Your task to perform on an android device: check the backup settings in the google photos Image 0: 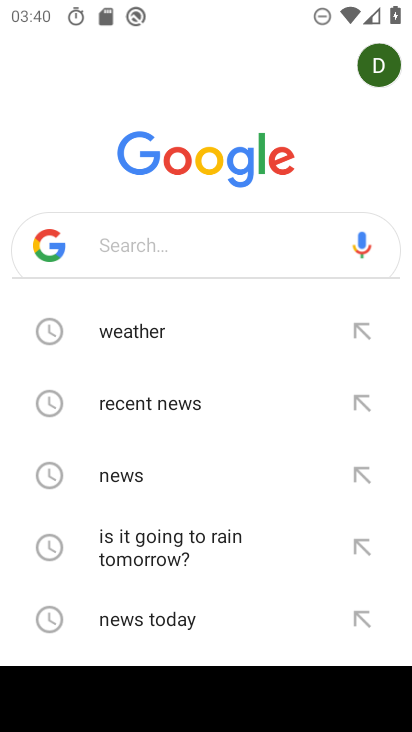
Step 0: press home button
Your task to perform on an android device: check the backup settings in the google photos Image 1: 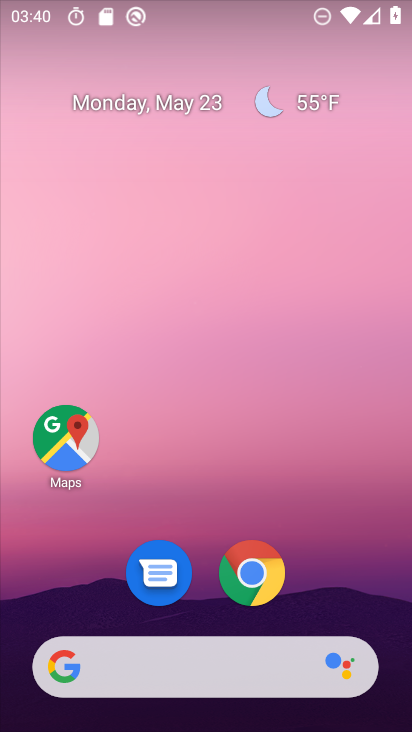
Step 1: drag from (321, 605) to (266, 74)
Your task to perform on an android device: check the backup settings in the google photos Image 2: 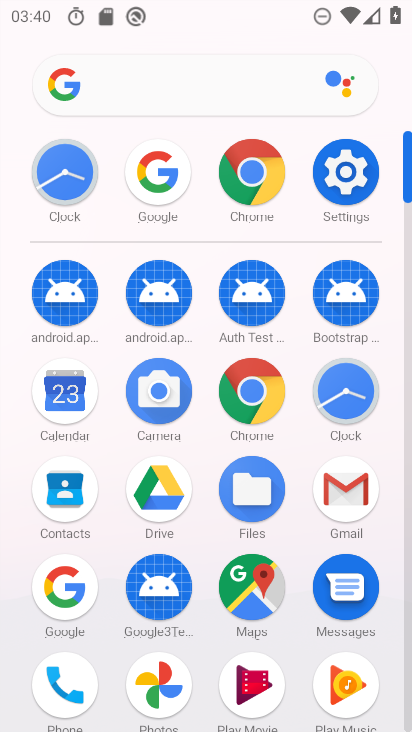
Step 2: click (145, 681)
Your task to perform on an android device: check the backup settings in the google photos Image 3: 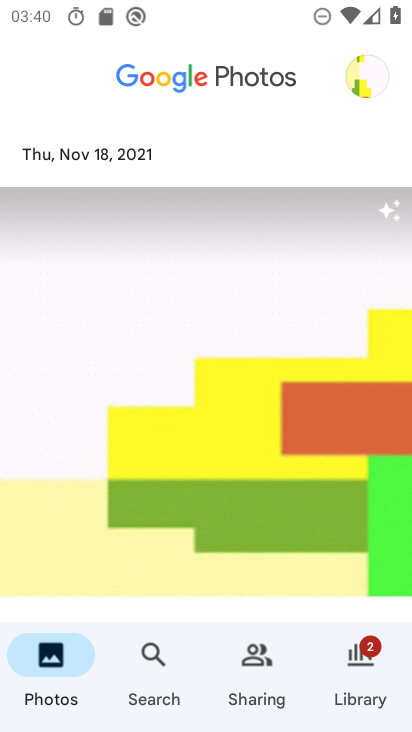
Step 3: click (375, 74)
Your task to perform on an android device: check the backup settings in the google photos Image 4: 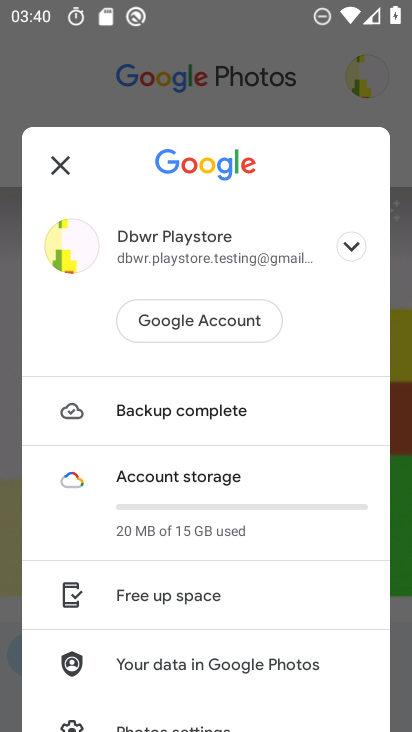
Step 4: drag from (248, 696) to (254, 432)
Your task to perform on an android device: check the backup settings in the google photos Image 5: 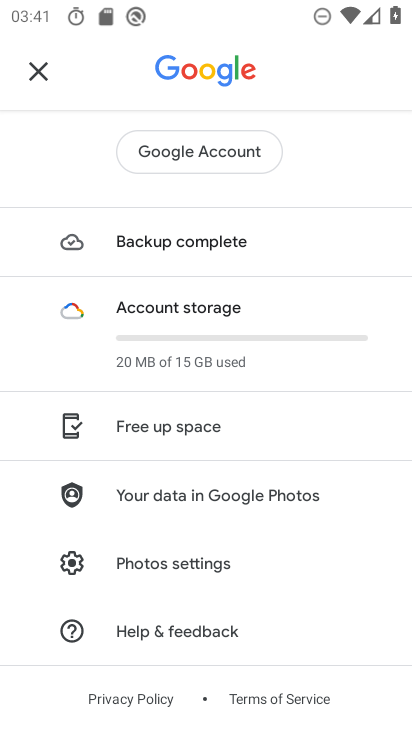
Step 5: click (204, 565)
Your task to perform on an android device: check the backup settings in the google photos Image 6: 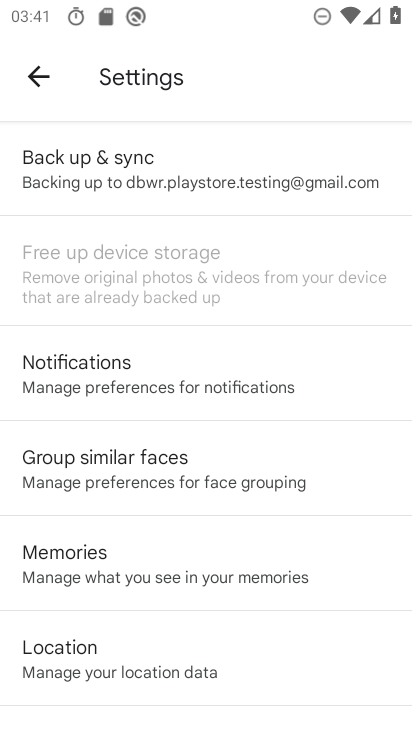
Step 6: click (222, 176)
Your task to perform on an android device: check the backup settings in the google photos Image 7: 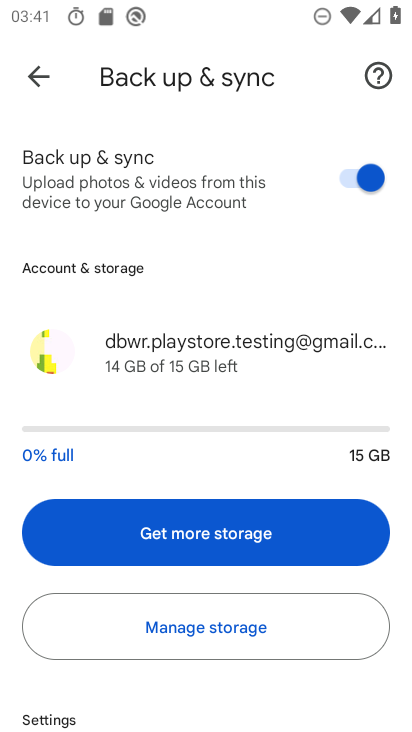
Step 7: task complete